Your task to perform on an android device: change alarm snooze length Image 0: 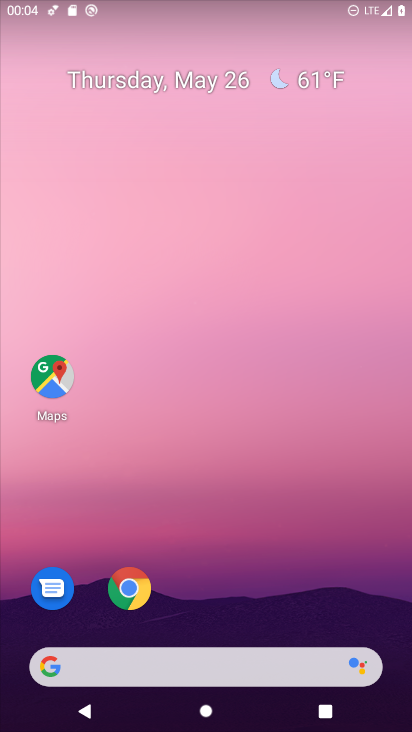
Step 0: drag from (294, 527) to (180, 29)
Your task to perform on an android device: change alarm snooze length Image 1: 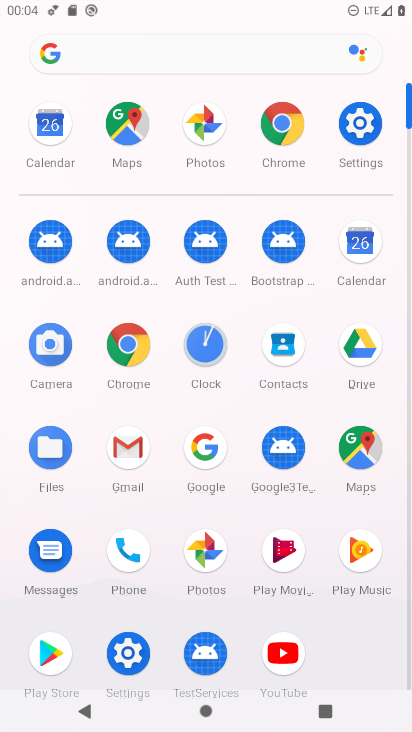
Step 1: click (213, 338)
Your task to perform on an android device: change alarm snooze length Image 2: 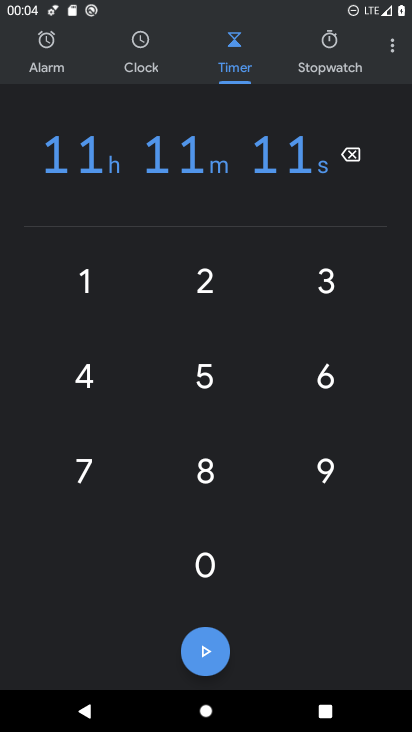
Step 2: click (385, 47)
Your task to perform on an android device: change alarm snooze length Image 3: 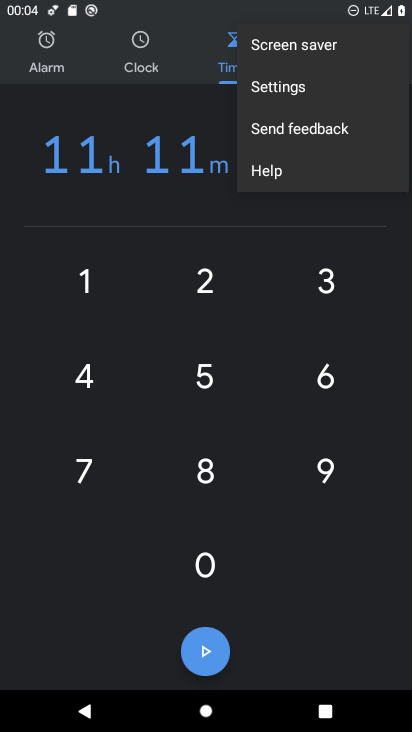
Step 3: click (282, 96)
Your task to perform on an android device: change alarm snooze length Image 4: 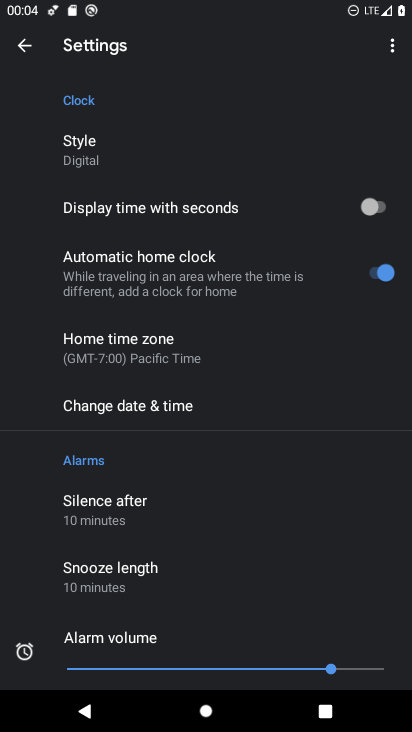
Step 4: drag from (269, 529) to (253, 316)
Your task to perform on an android device: change alarm snooze length Image 5: 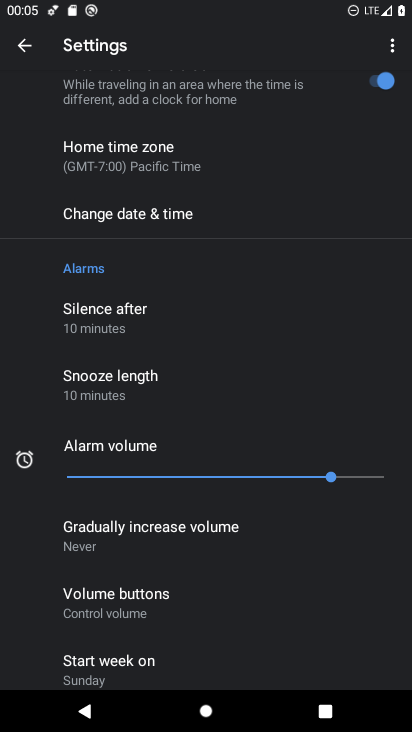
Step 5: click (125, 378)
Your task to perform on an android device: change alarm snooze length Image 6: 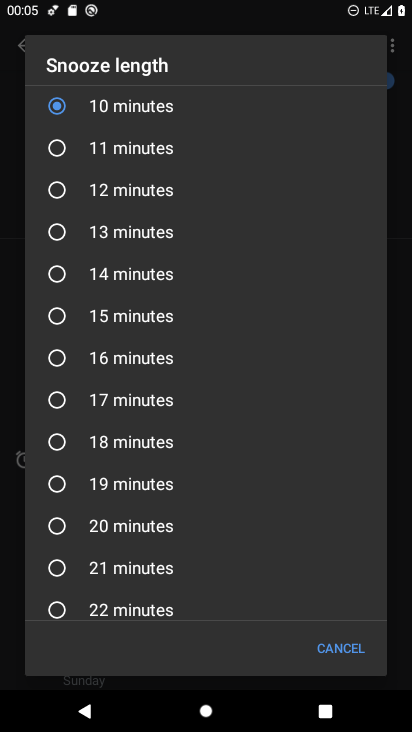
Step 6: click (66, 301)
Your task to perform on an android device: change alarm snooze length Image 7: 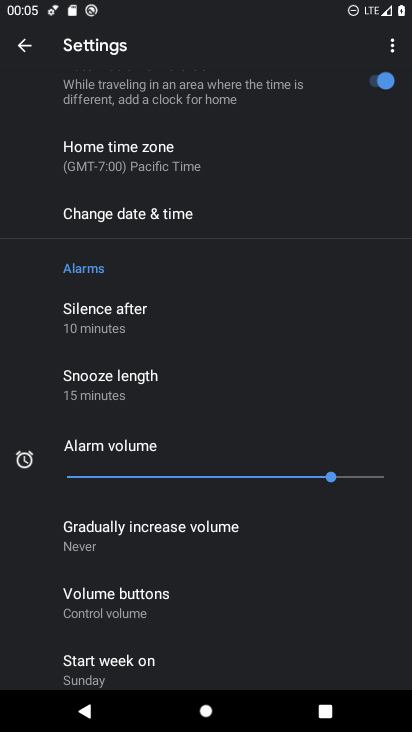
Step 7: task complete